Your task to perform on an android device: Search for pizza restaurants on Maps Image 0: 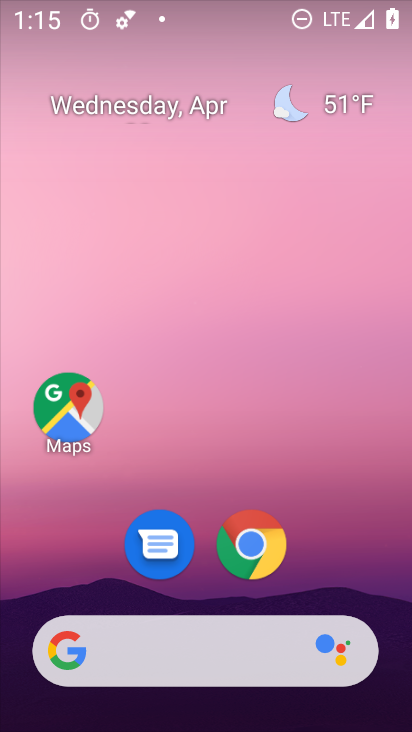
Step 0: drag from (337, 574) to (376, 217)
Your task to perform on an android device: Search for pizza restaurants on Maps Image 1: 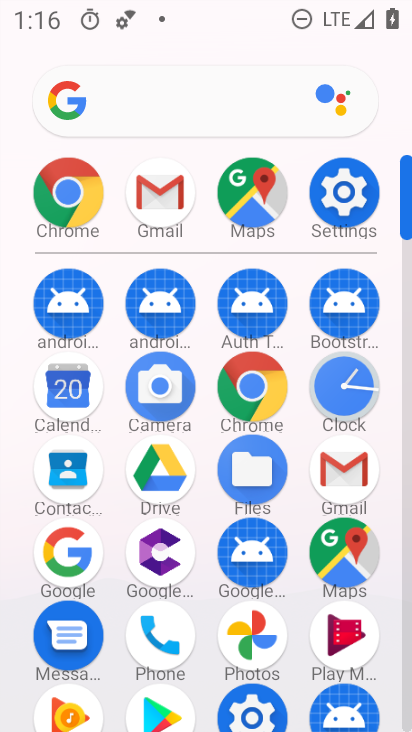
Step 1: click (356, 564)
Your task to perform on an android device: Search for pizza restaurants on Maps Image 2: 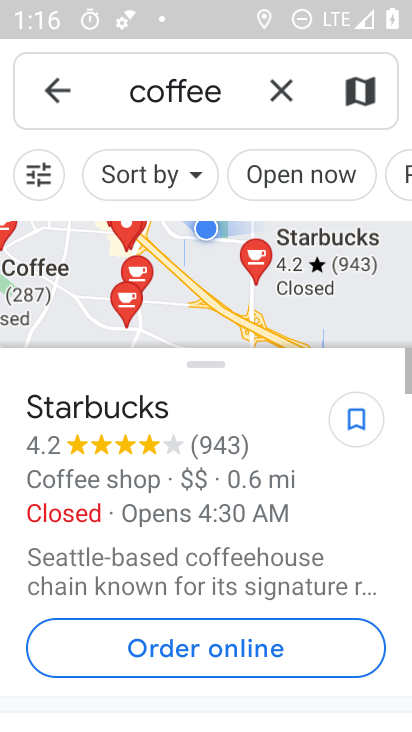
Step 2: click (256, 80)
Your task to perform on an android device: Search for pizza restaurants on Maps Image 3: 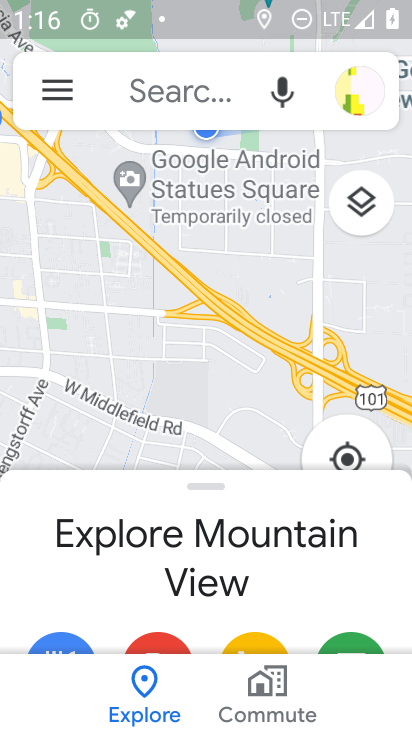
Step 3: type "pizzaa restaurants"
Your task to perform on an android device: Search for pizza restaurants on Maps Image 4: 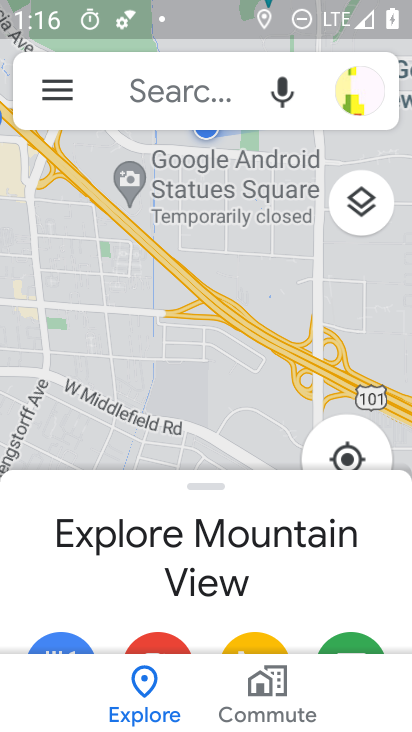
Step 4: click (162, 87)
Your task to perform on an android device: Search for pizza restaurants on Maps Image 5: 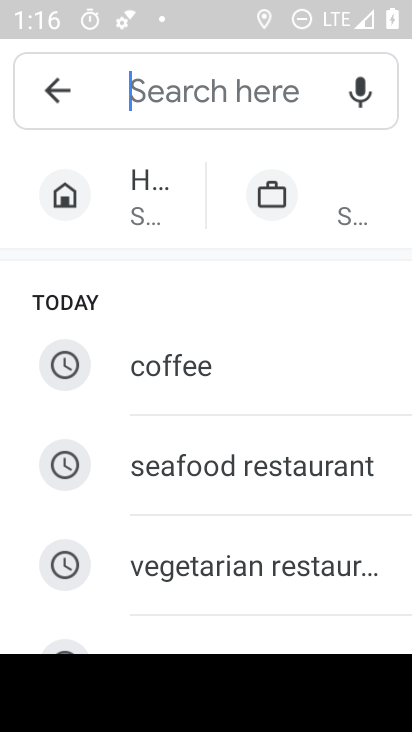
Step 5: type "pizzaa restaurants"
Your task to perform on an android device: Search for pizza restaurants on Maps Image 6: 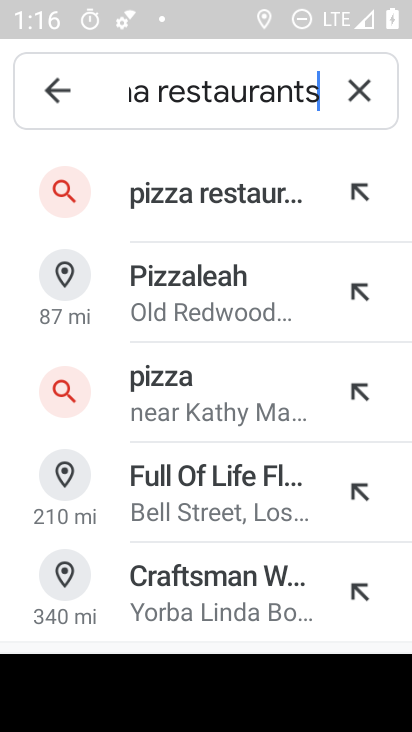
Step 6: click (183, 191)
Your task to perform on an android device: Search for pizza restaurants on Maps Image 7: 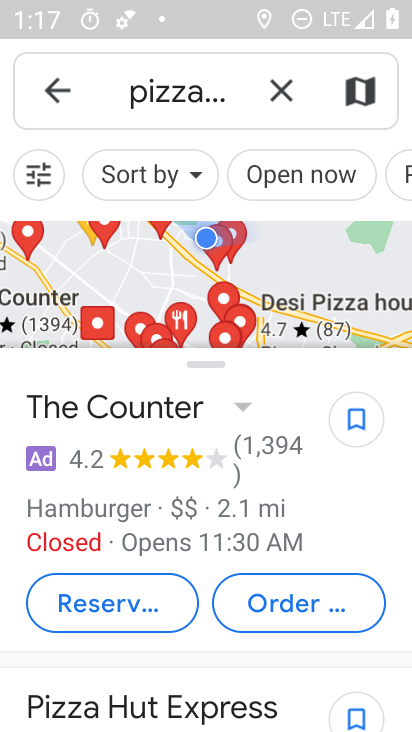
Step 7: task complete